Your task to perform on an android device: Is it going to rain this weekend? Image 0: 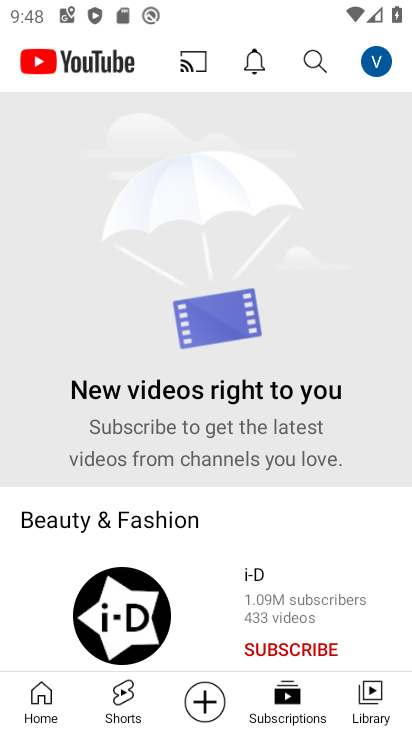
Step 0: press home button
Your task to perform on an android device: Is it going to rain this weekend? Image 1: 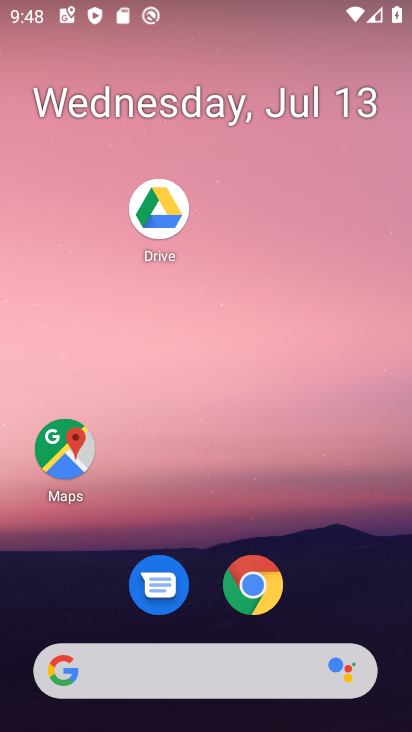
Step 1: click (148, 673)
Your task to perform on an android device: Is it going to rain this weekend? Image 2: 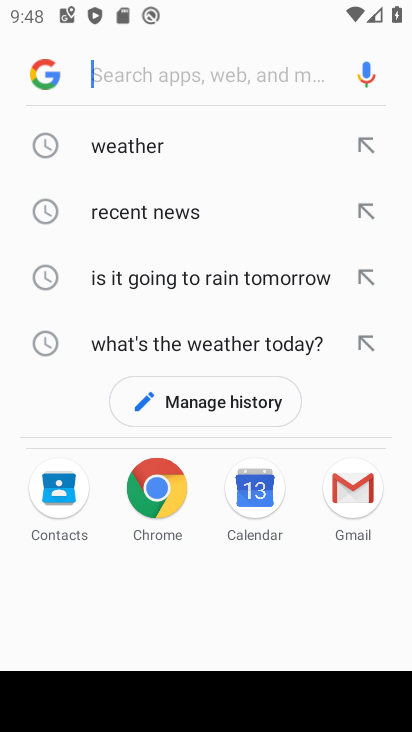
Step 2: click (149, 153)
Your task to perform on an android device: Is it going to rain this weekend? Image 3: 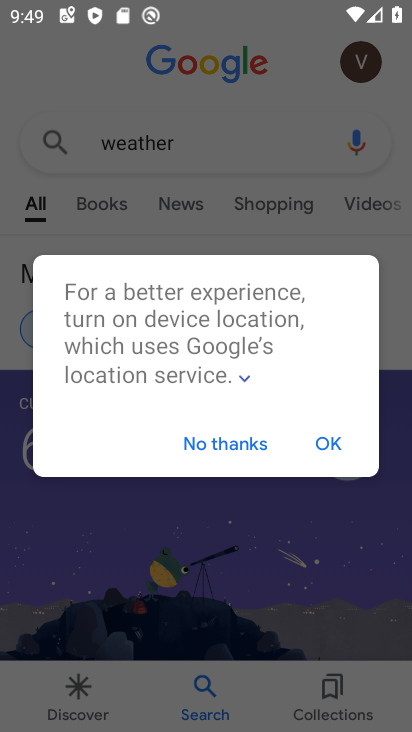
Step 3: click (333, 437)
Your task to perform on an android device: Is it going to rain this weekend? Image 4: 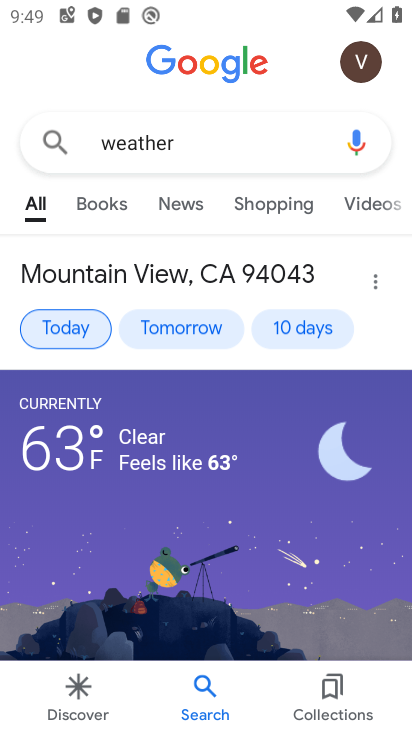
Step 4: click (309, 332)
Your task to perform on an android device: Is it going to rain this weekend? Image 5: 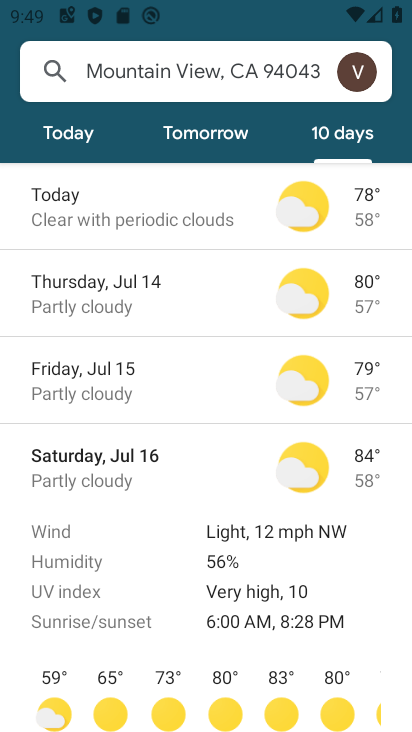
Step 5: task complete